Your task to perform on an android device: Search for Mexican restaurants on Maps Image 0: 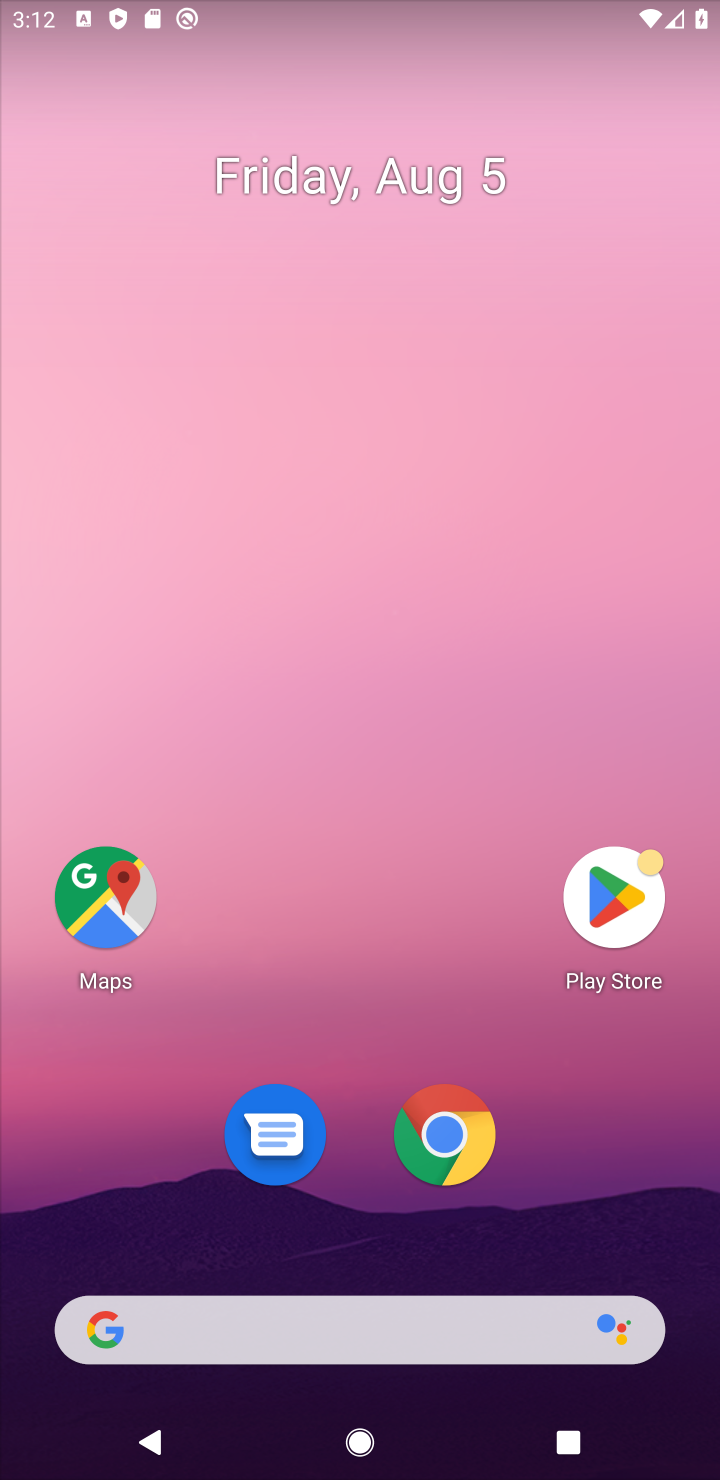
Step 0: click (106, 893)
Your task to perform on an android device: Search for Mexican restaurants on Maps Image 1: 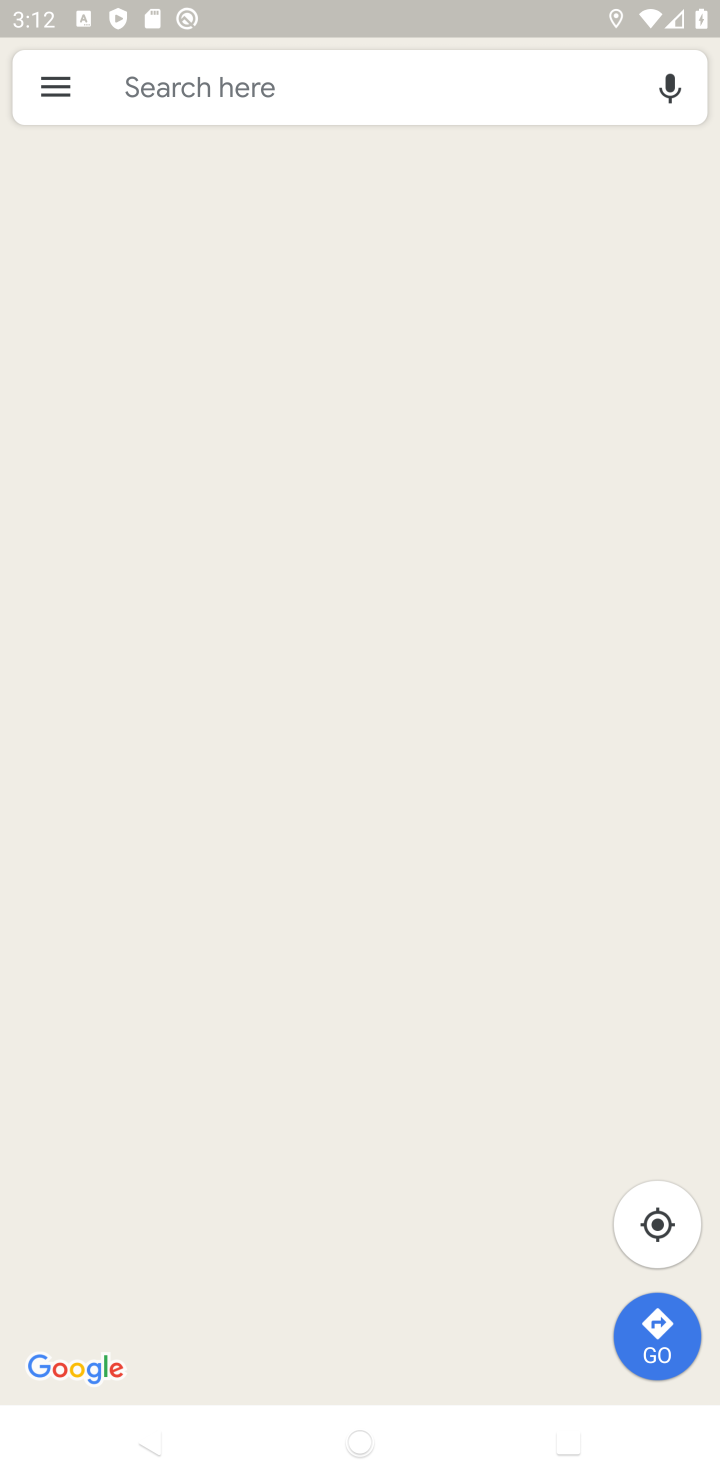
Step 1: click (257, 86)
Your task to perform on an android device: Search for Mexican restaurants on Maps Image 2: 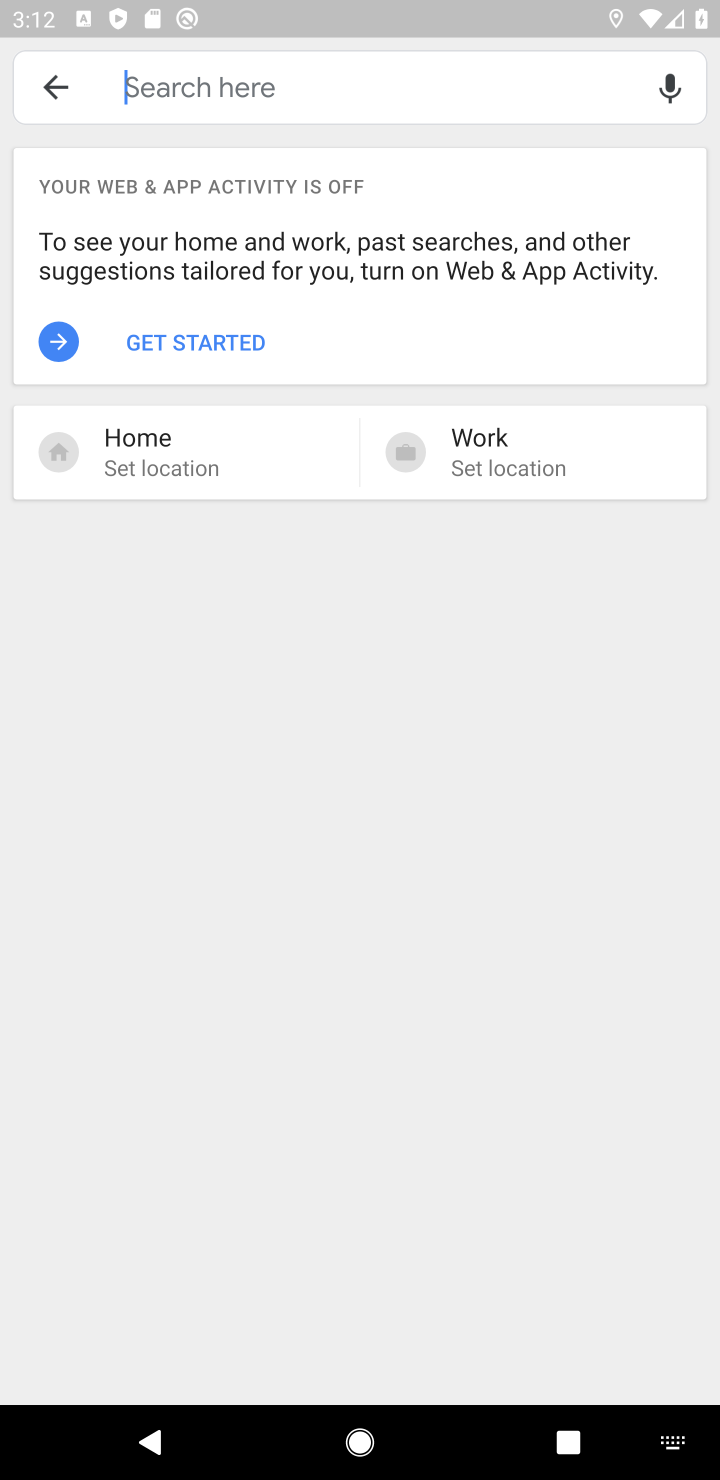
Step 2: type "Mexican restaurants "
Your task to perform on an android device: Search for Mexican restaurants on Maps Image 3: 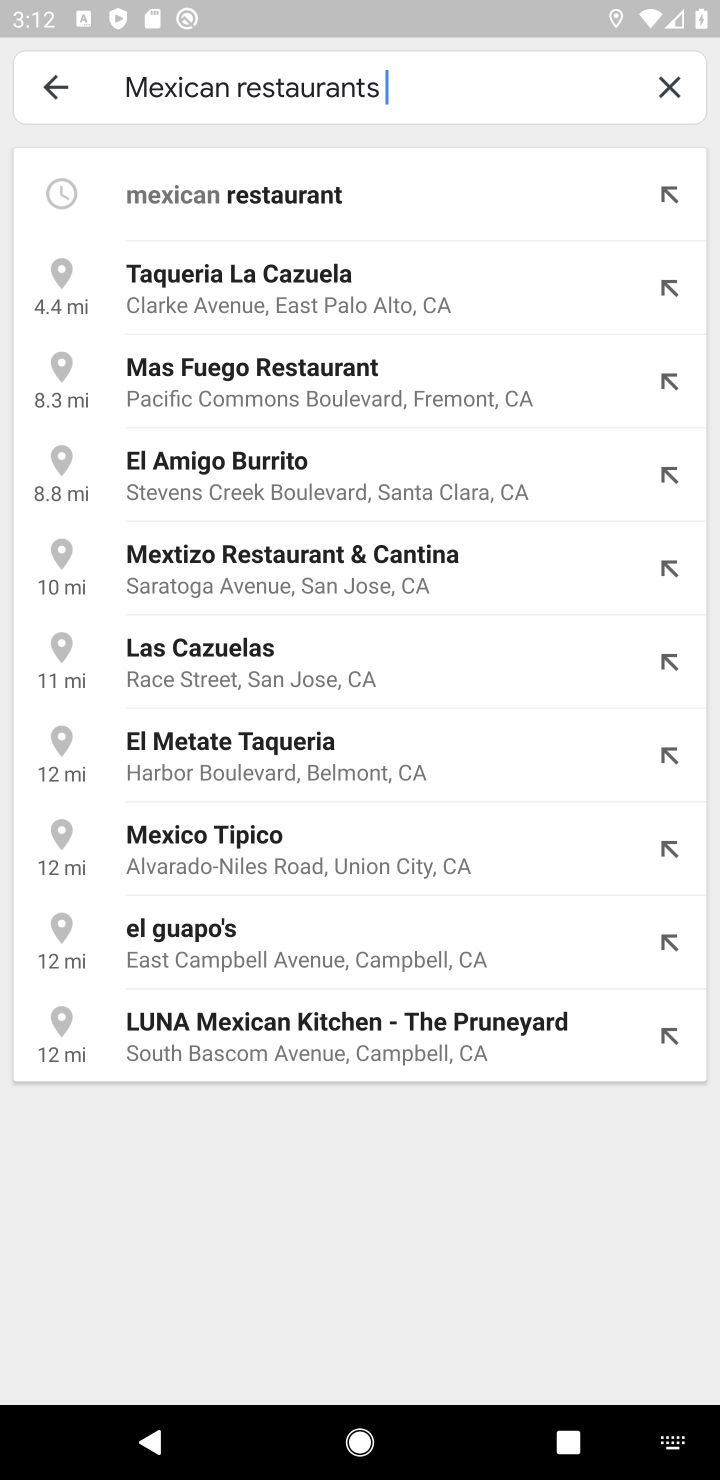
Step 3: press enter
Your task to perform on an android device: Search for Mexican restaurants on Maps Image 4: 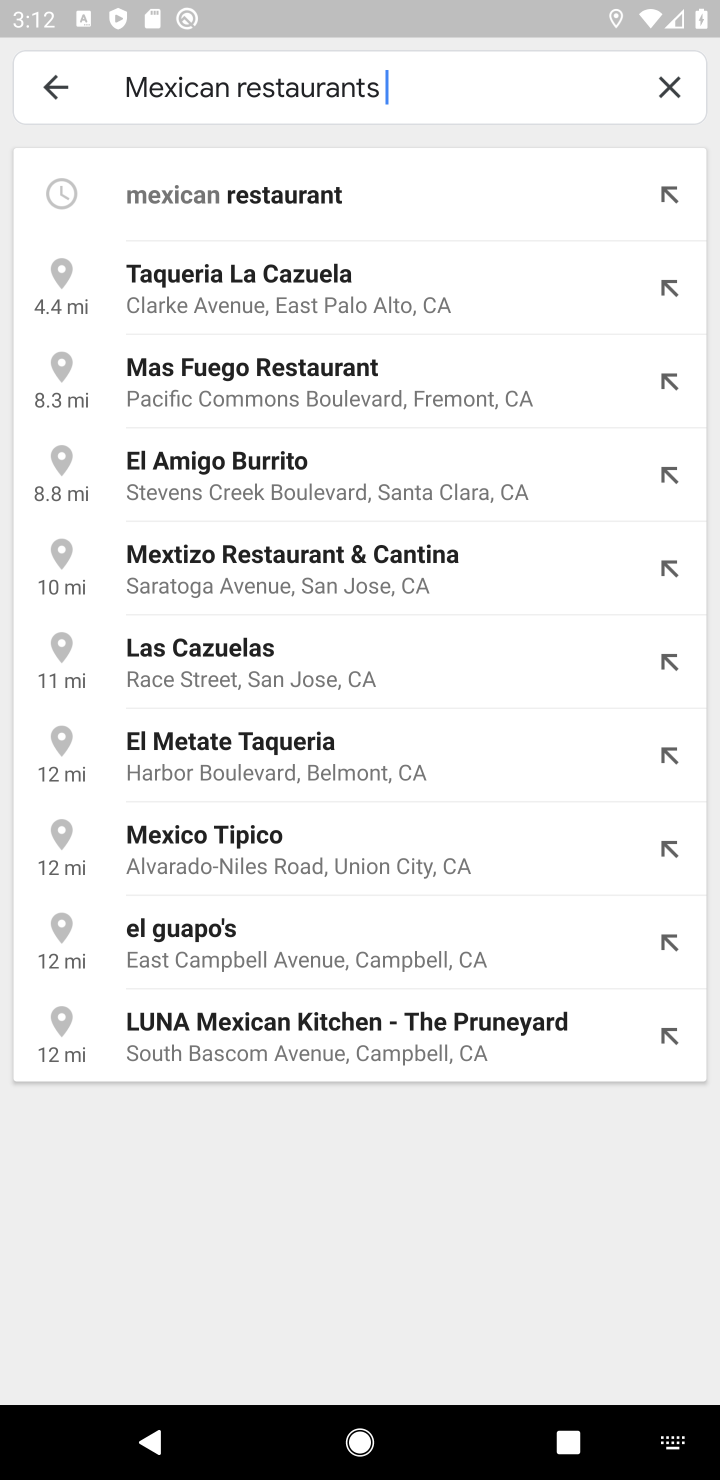
Step 4: type ""
Your task to perform on an android device: Search for Mexican restaurants on Maps Image 5: 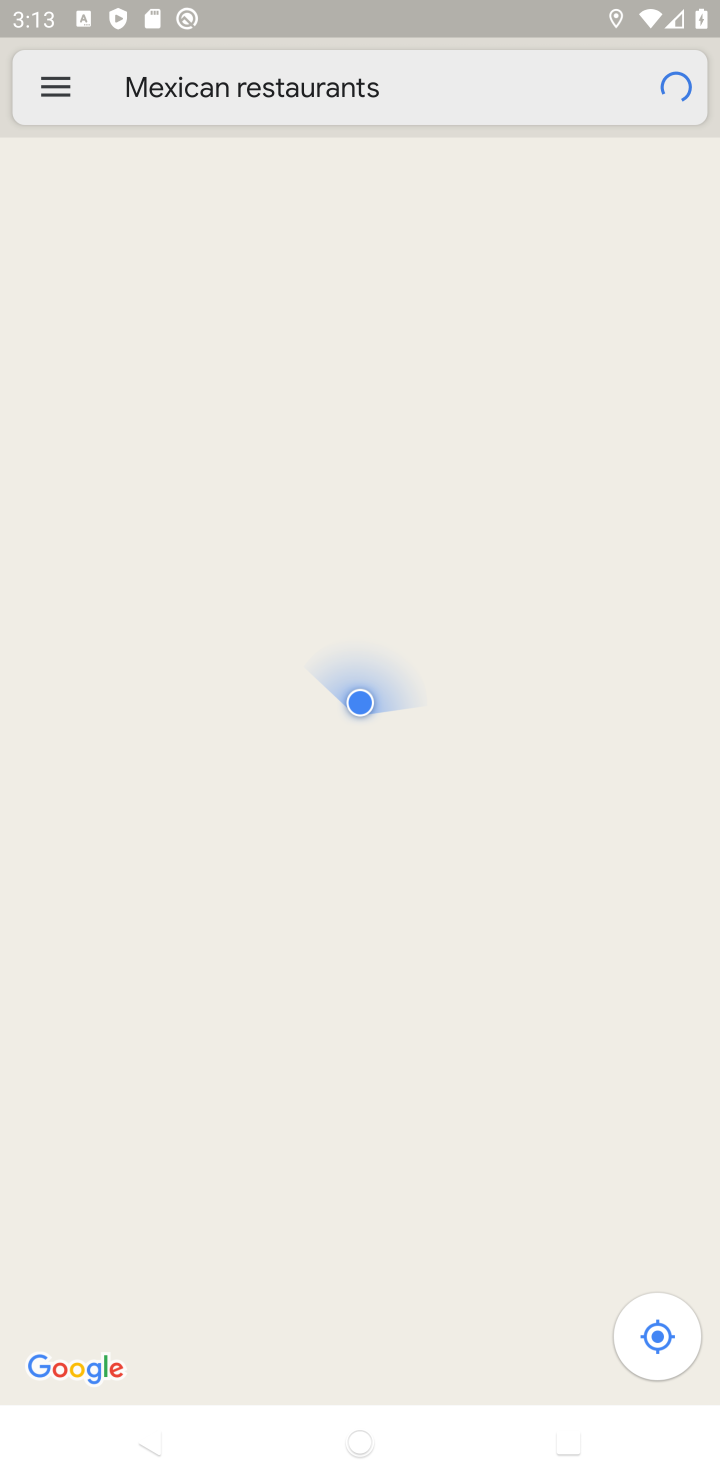
Step 5: press enter
Your task to perform on an android device: Search for Mexican restaurants on Maps Image 6: 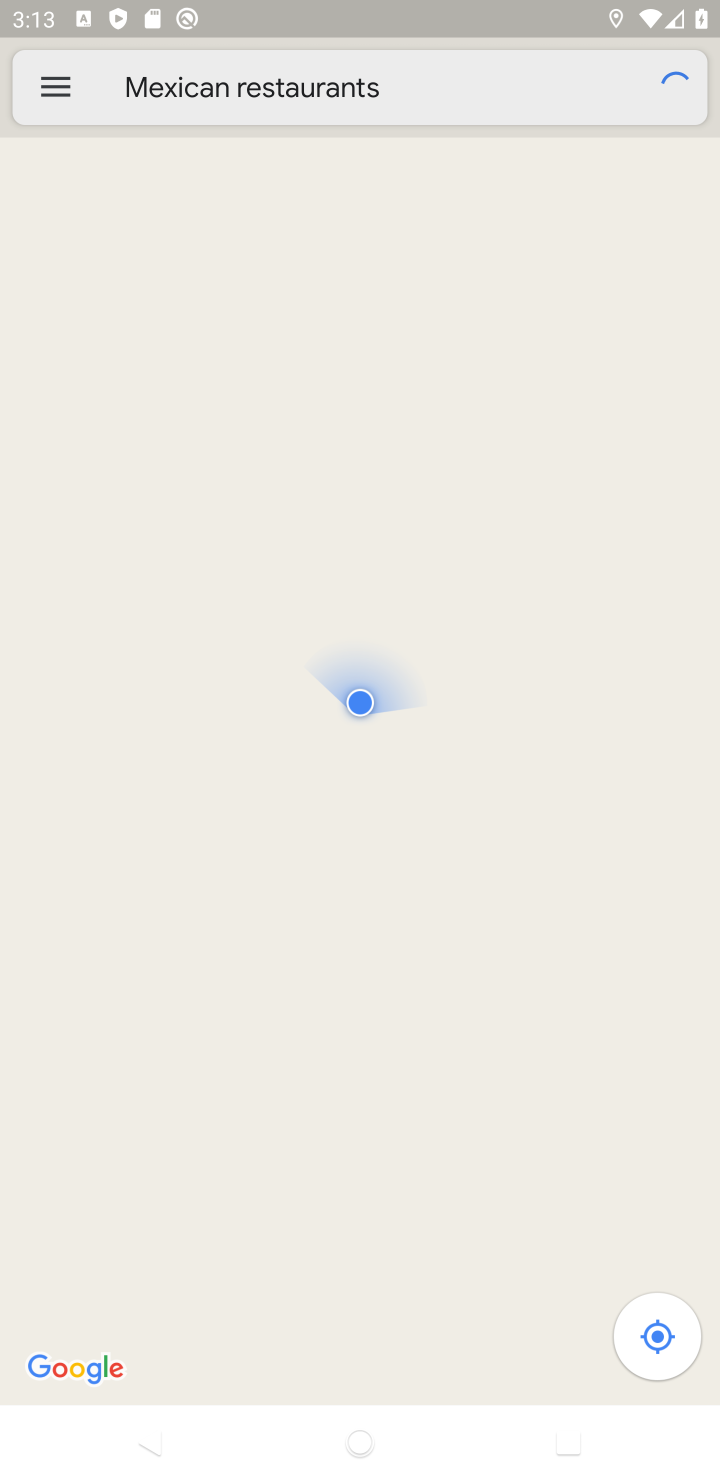
Step 6: task complete